Your task to perform on an android device: open app "PlayWell" Image 0: 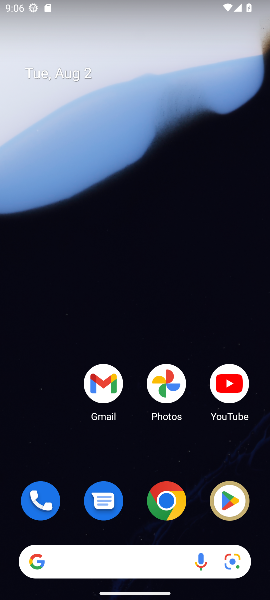
Step 0: drag from (138, 525) to (132, 139)
Your task to perform on an android device: open app "PlayWell" Image 1: 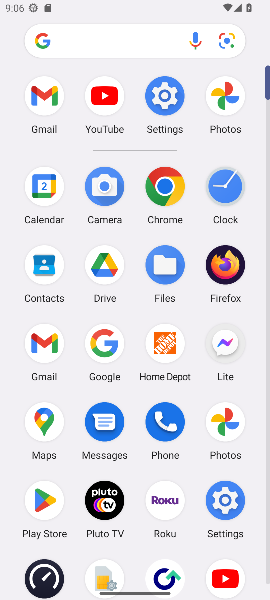
Step 1: click (45, 506)
Your task to perform on an android device: open app "PlayWell" Image 2: 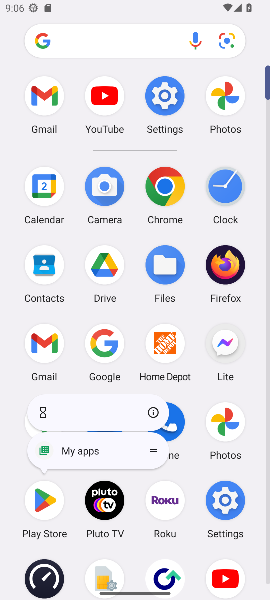
Step 2: click (155, 408)
Your task to perform on an android device: open app "PlayWell" Image 3: 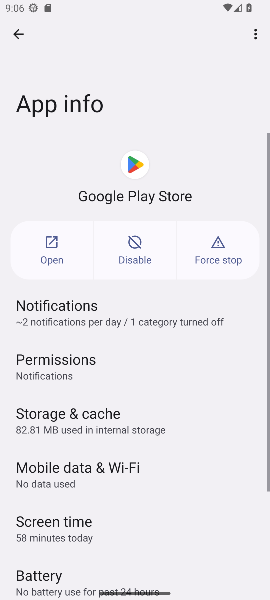
Step 3: click (58, 242)
Your task to perform on an android device: open app "PlayWell" Image 4: 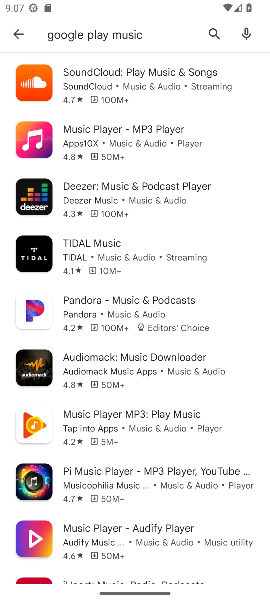
Step 4: drag from (141, 283) to (136, 570)
Your task to perform on an android device: open app "PlayWell" Image 5: 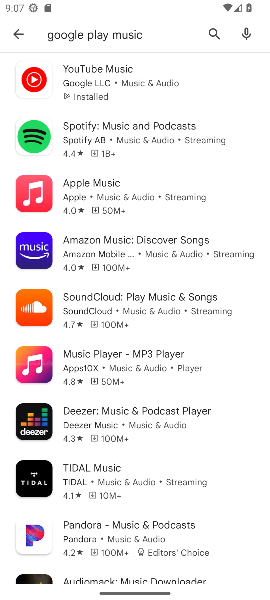
Step 5: click (212, 33)
Your task to perform on an android device: open app "PlayWell" Image 6: 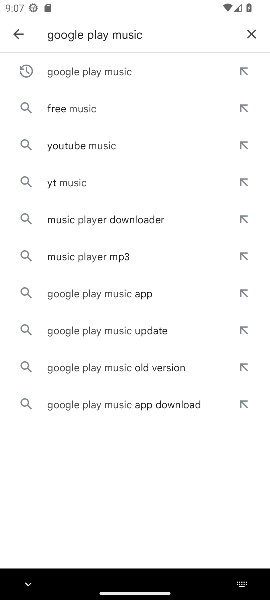
Step 6: click (239, 39)
Your task to perform on an android device: open app "PlayWell" Image 7: 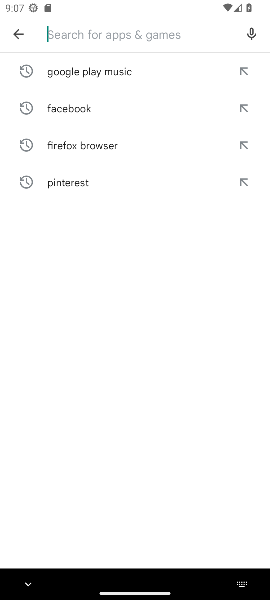
Step 7: type "PlayWell"
Your task to perform on an android device: open app "PlayWell" Image 8: 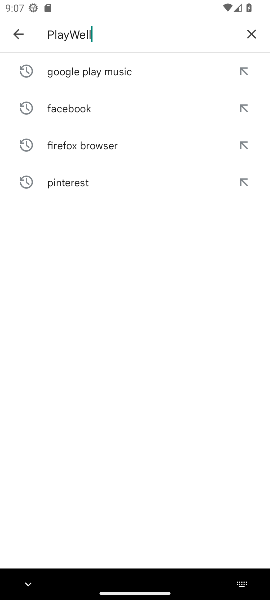
Step 8: type ""
Your task to perform on an android device: open app "PlayWell" Image 9: 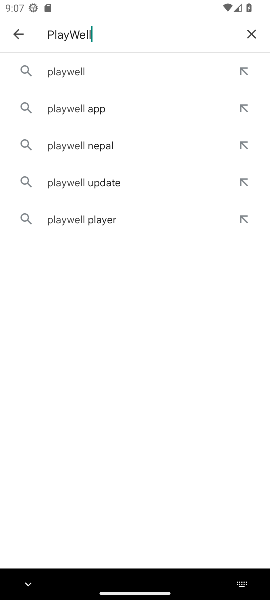
Step 9: click (82, 68)
Your task to perform on an android device: open app "PlayWell" Image 10: 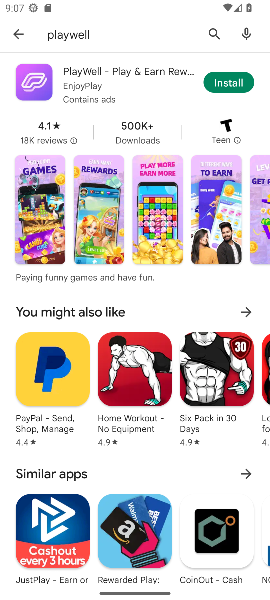
Step 10: click (76, 76)
Your task to perform on an android device: open app "PlayWell" Image 11: 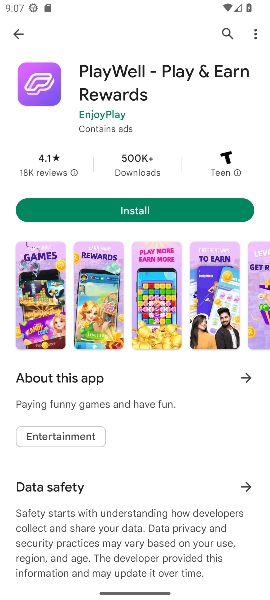
Step 11: task complete